Your task to perform on an android device: Go to Amazon Image 0: 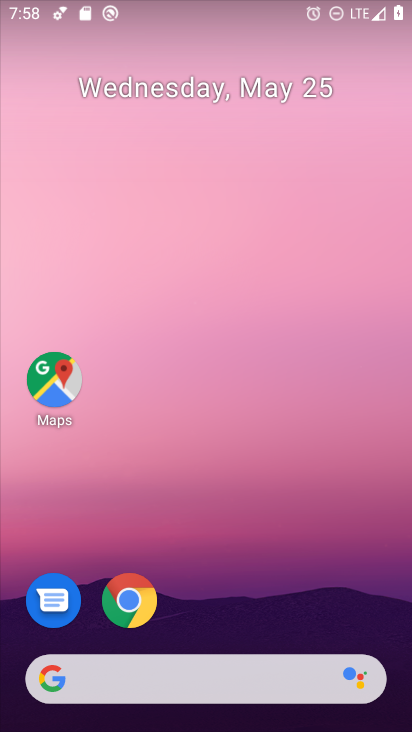
Step 0: drag from (329, 559) to (264, 79)
Your task to perform on an android device: Go to Amazon Image 1: 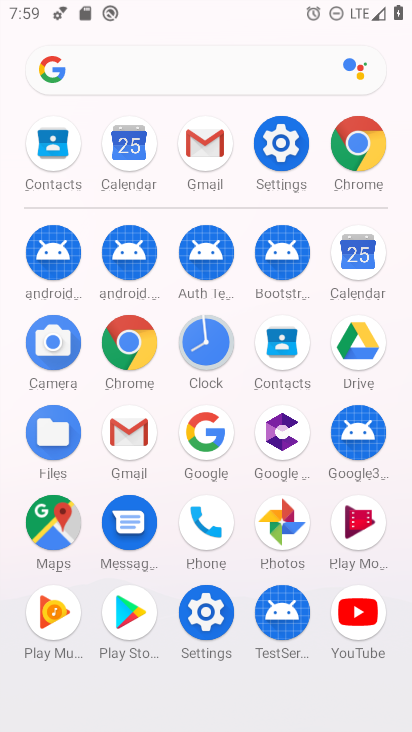
Step 1: click (119, 342)
Your task to perform on an android device: Go to Amazon Image 2: 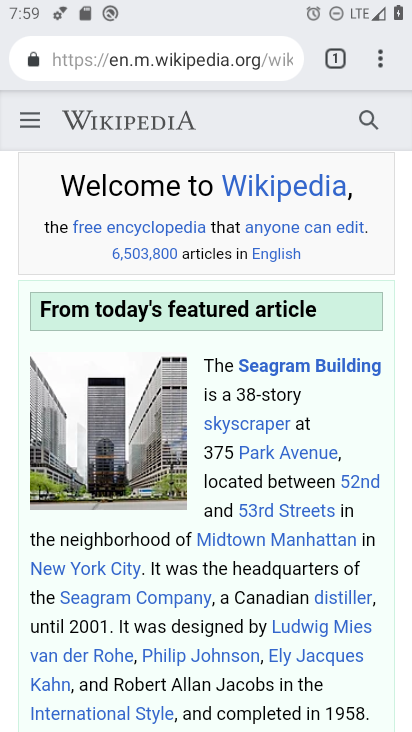
Step 2: click (136, 60)
Your task to perform on an android device: Go to Amazon Image 3: 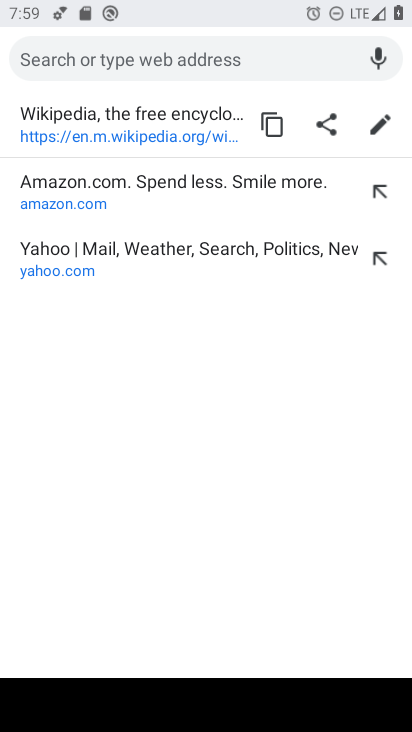
Step 3: click (56, 203)
Your task to perform on an android device: Go to Amazon Image 4: 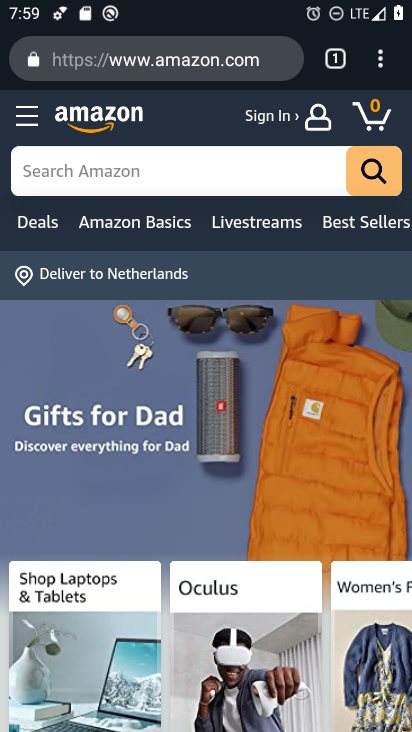
Step 4: task complete